Your task to perform on an android device: Open Youtube and go to the subscriptions tab Image 0: 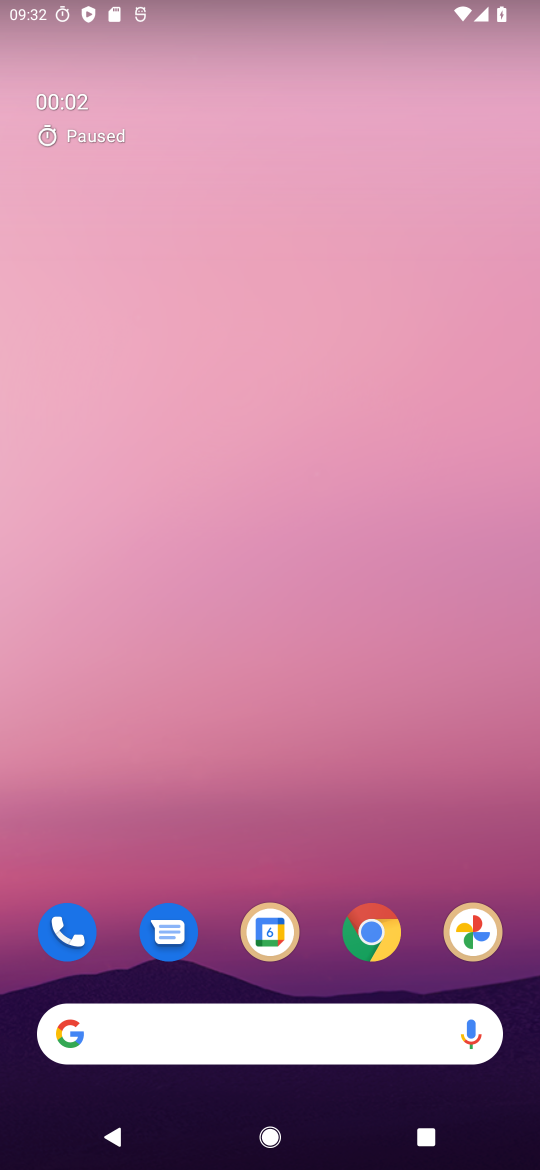
Step 0: drag from (252, 1007) to (438, 326)
Your task to perform on an android device: Open Youtube and go to the subscriptions tab Image 1: 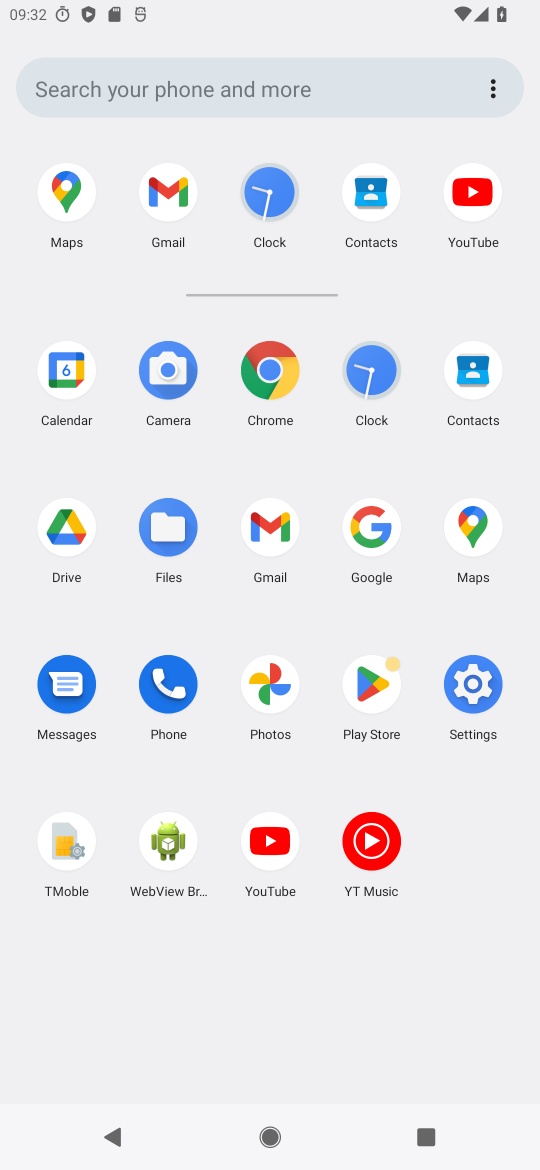
Step 1: click (277, 830)
Your task to perform on an android device: Open Youtube and go to the subscriptions tab Image 2: 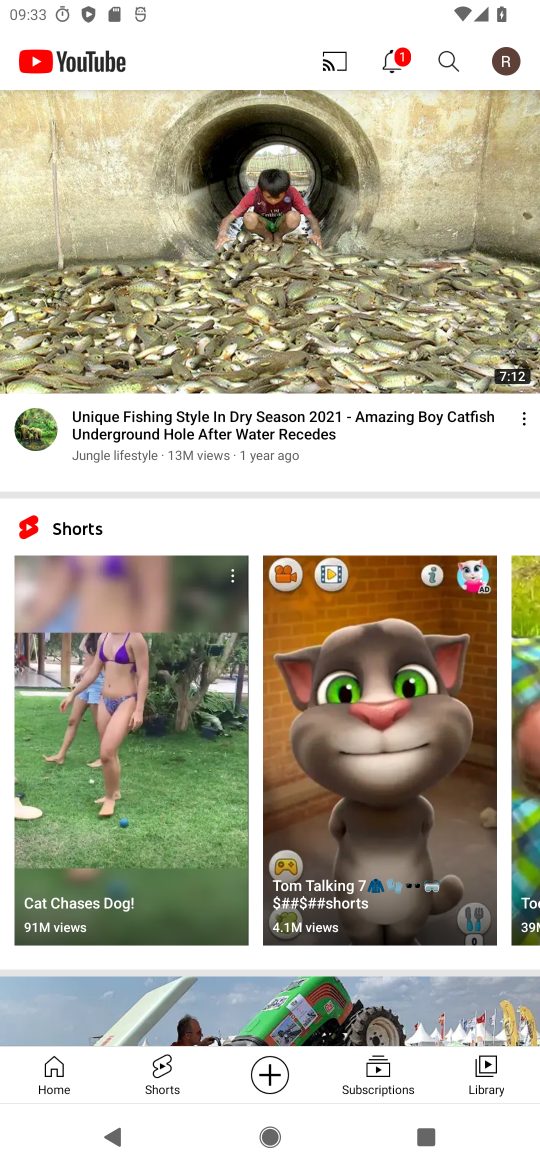
Step 2: click (379, 1087)
Your task to perform on an android device: Open Youtube and go to the subscriptions tab Image 3: 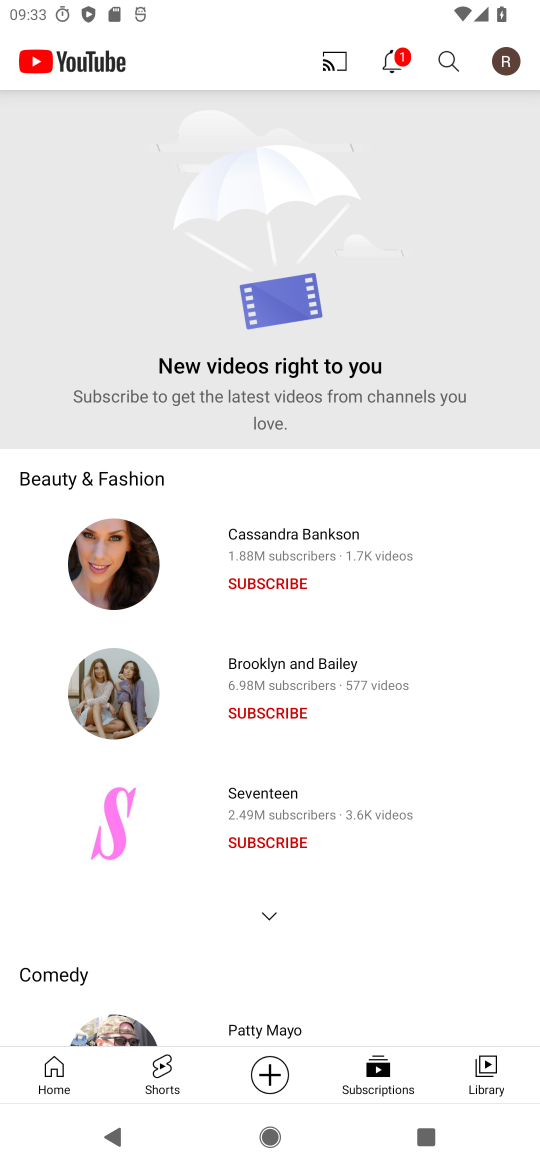
Step 3: task complete